Your task to perform on an android device: set the timer Image 0: 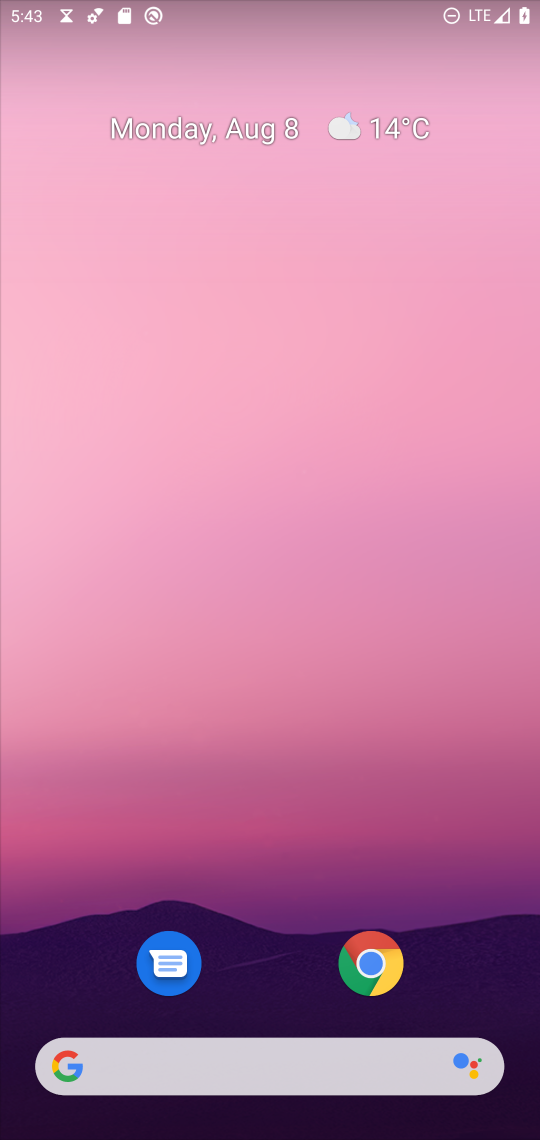
Step 0: drag from (302, 858) to (199, 246)
Your task to perform on an android device: set the timer Image 1: 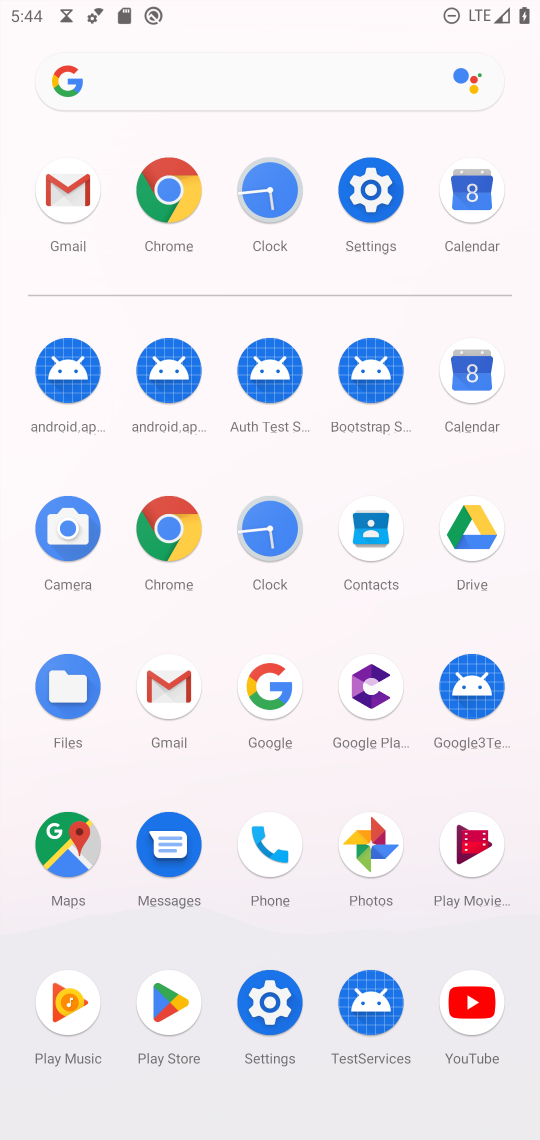
Step 1: click (281, 554)
Your task to perform on an android device: set the timer Image 2: 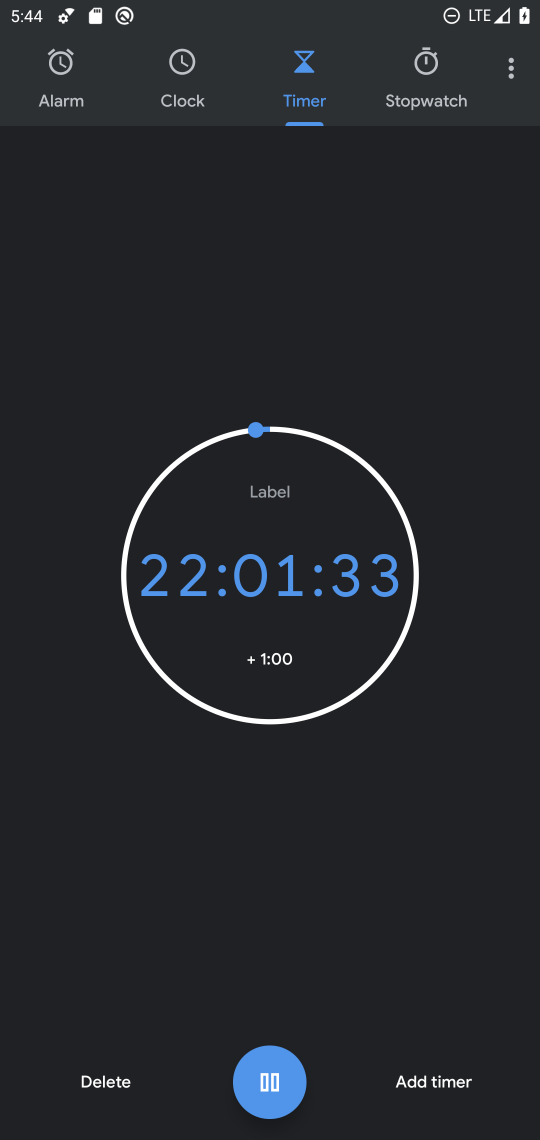
Step 2: task complete